Your task to perform on an android device: set default search engine in the chrome app Image 0: 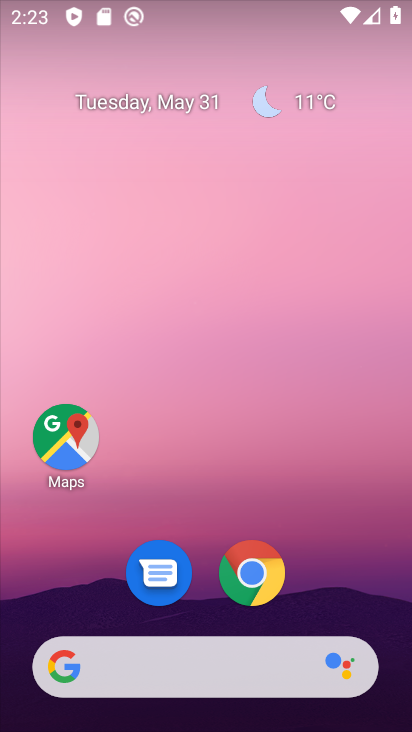
Step 0: drag from (358, 600) to (173, 105)
Your task to perform on an android device: set default search engine in the chrome app Image 1: 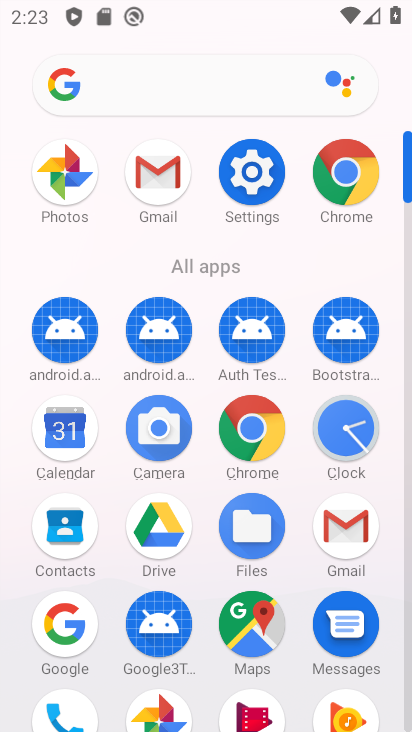
Step 1: click (328, 149)
Your task to perform on an android device: set default search engine in the chrome app Image 2: 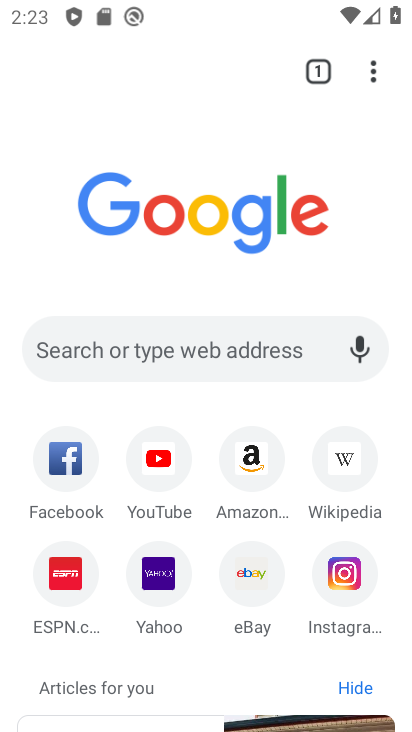
Step 2: click (381, 74)
Your task to perform on an android device: set default search engine in the chrome app Image 3: 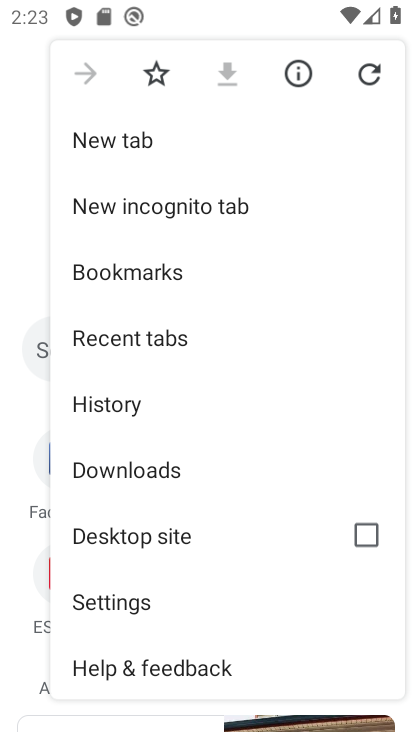
Step 3: click (207, 610)
Your task to perform on an android device: set default search engine in the chrome app Image 4: 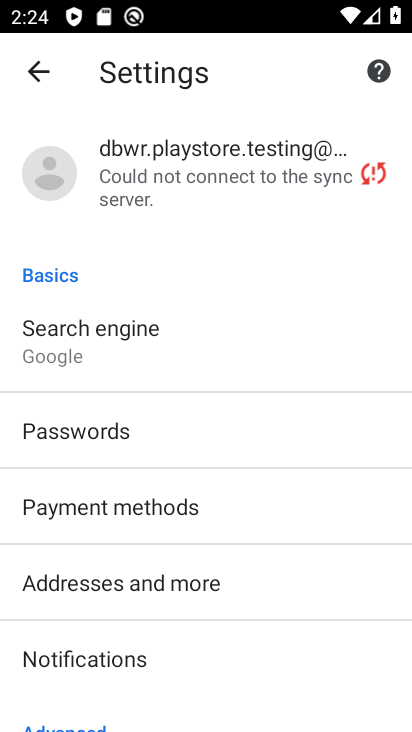
Step 4: click (177, 344)
Your task to perform on an android device: set default search engine in the chrome app Image 5: 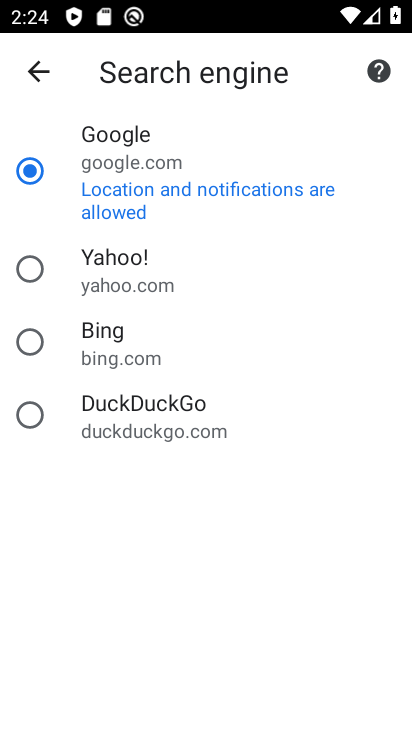
Step 5: click (115, 285)
Your task to perform on an android device: set default search engine in the chrome app Image 6: 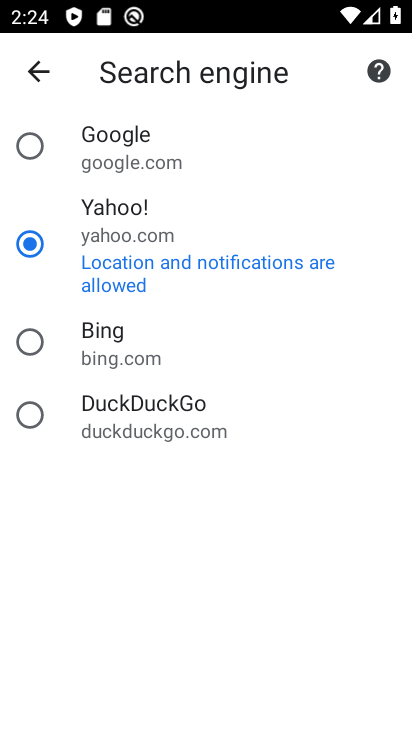
Step 6: task complete